Your task to perform on an android device: check google app version Image 0: 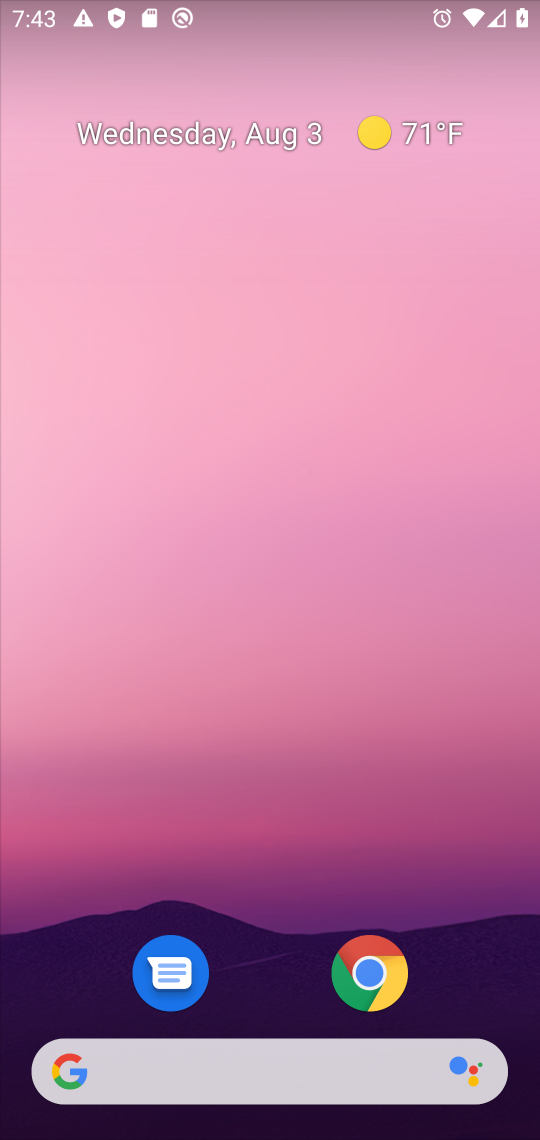
Step 0: click (67, 1085)
Your task to perform on an android device: check google app version Image 1: 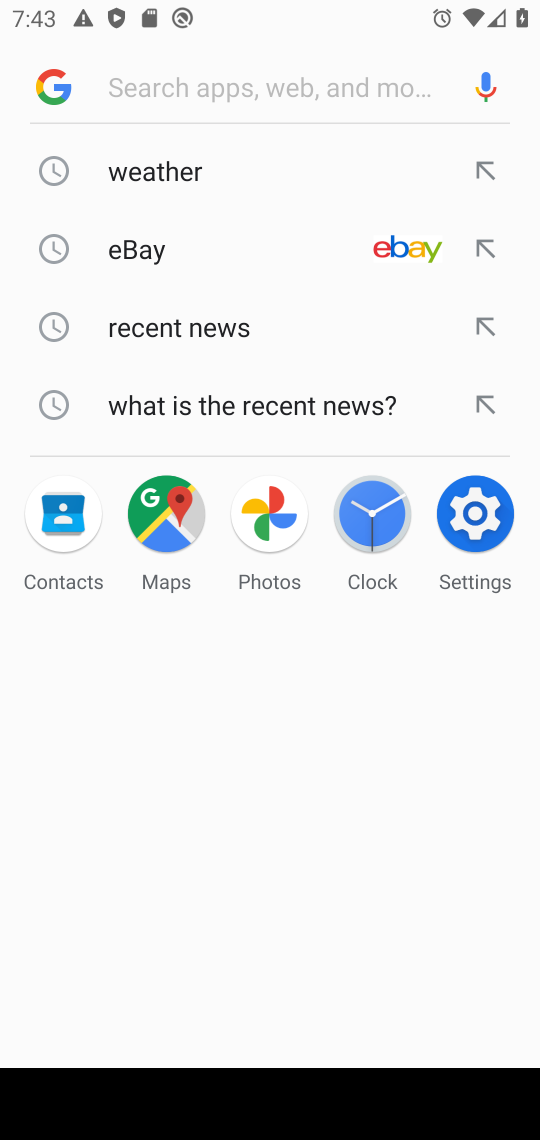
Step 1: click (51, 75)
Your task to perform on an android device: check google app version Image 2: 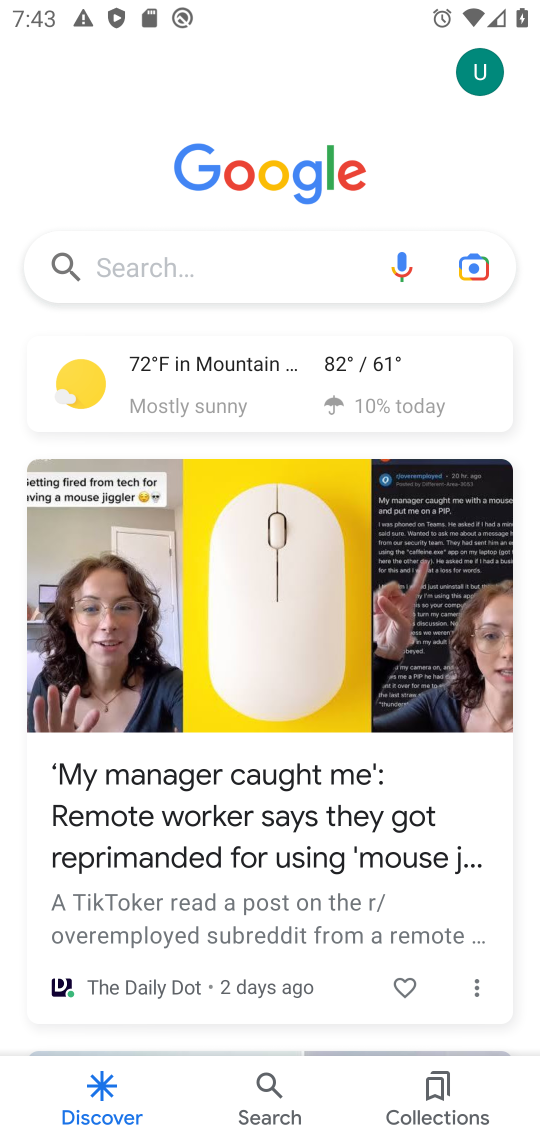
Step 2: click (473, 79)
Your task to perform on an android device: check google app version Image 3: 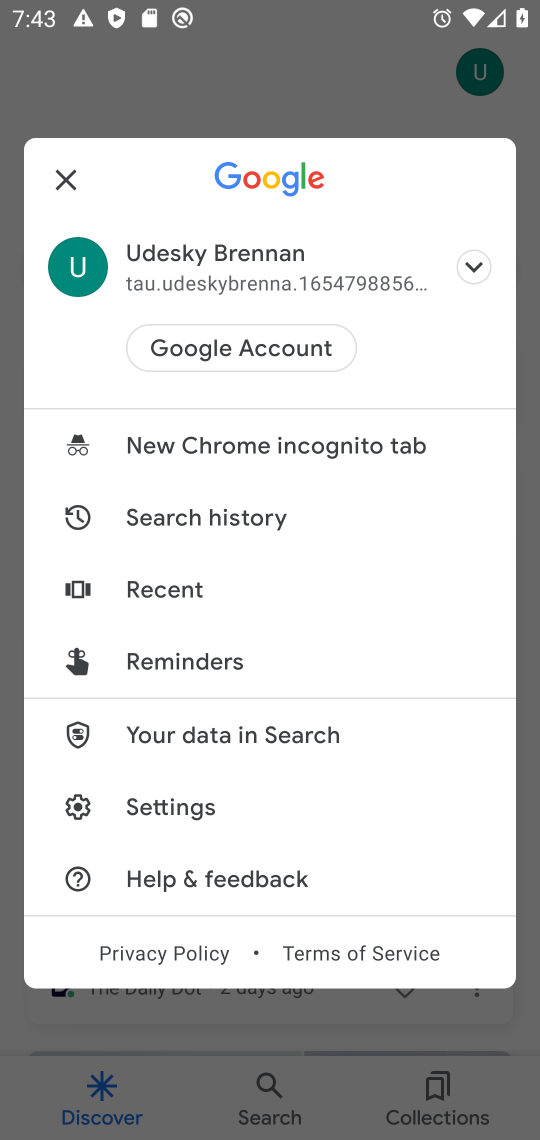
Step 3: click (179, 821)
Your task to perform on an android device: check google app version Image 4: 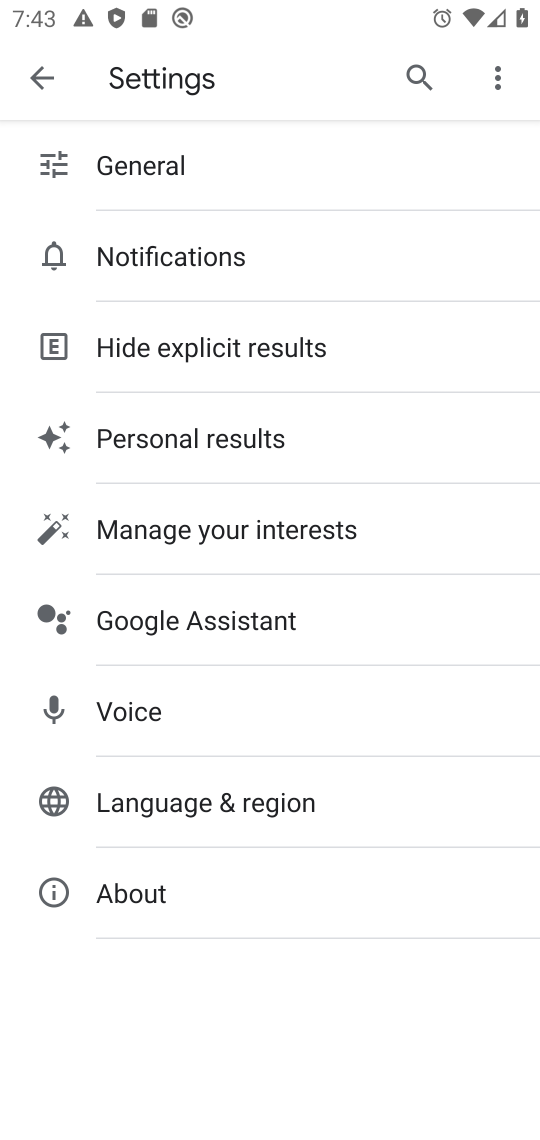
Step 4: click (179, 897)
Your task to perform on an android device: check google app version Image 5: 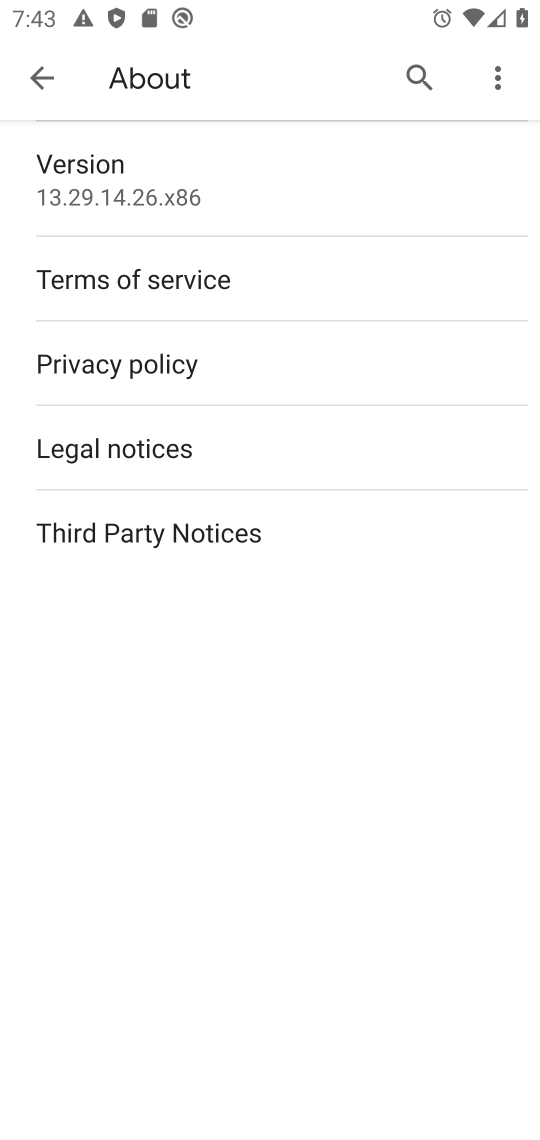
Step 5: task complete